Your task to perform on an android device: delete browsing data in the chrome app Image 0: 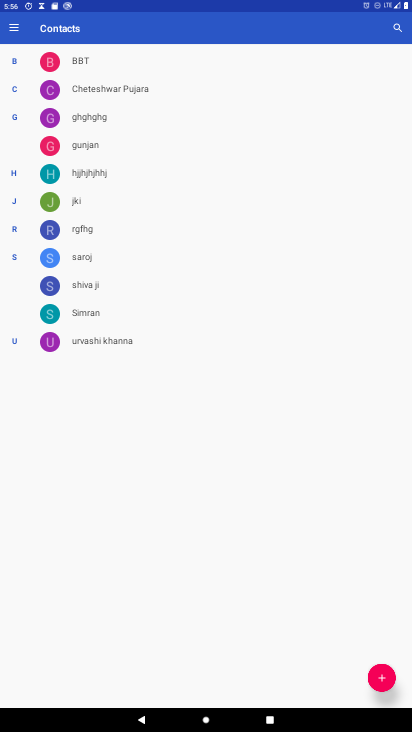
Step 0: press home button
Your task to perform on an android device: delete browsing data in the chrome app Image 1: 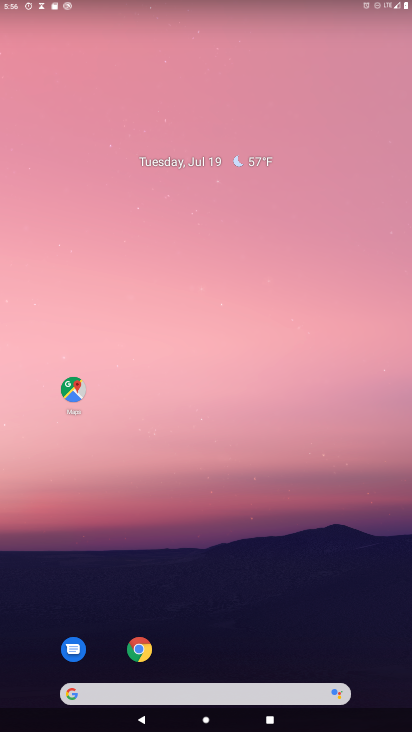
Step 1: click (146, 650)
Your task to perform on an android device: delete browsing data in the chrome app Image 2: 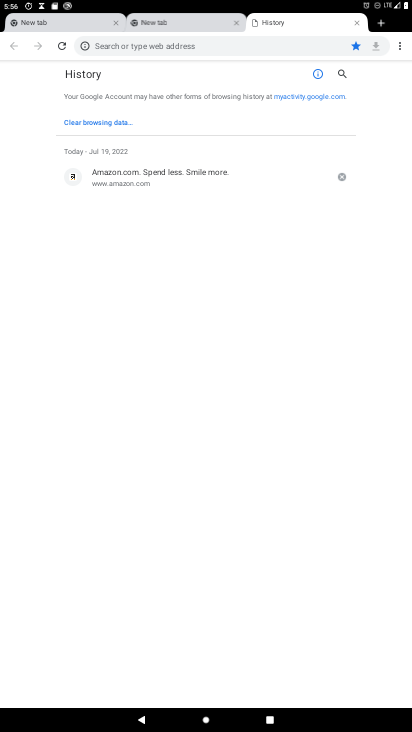
Step 2: click (396, 47)
Your task to perform on an android device: delete browsing data in the chrome app Image 3: 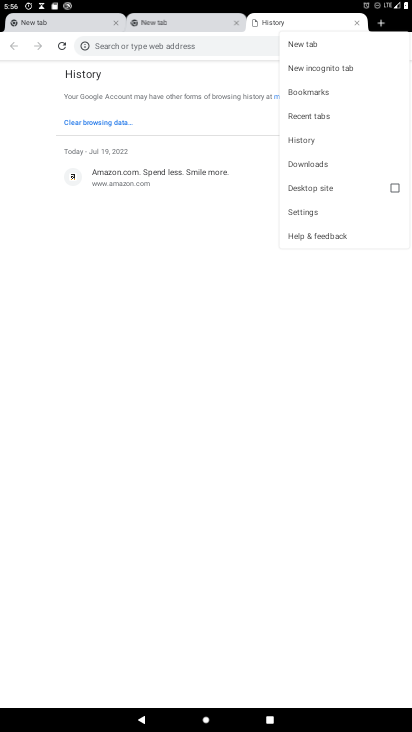
Step 3: click (320, 140)
Your task to perform on an android device: delete browsing data in the chrome app Image 4: 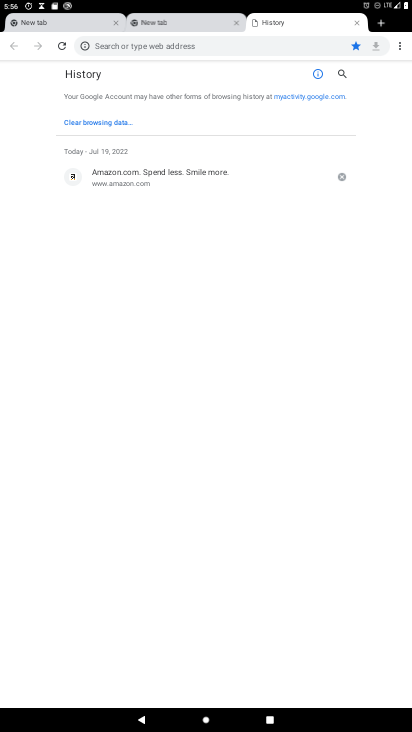
Step 4: click (90, 127)
Your task to perform on an android device: delete browsing data in the chrome app Image 5: 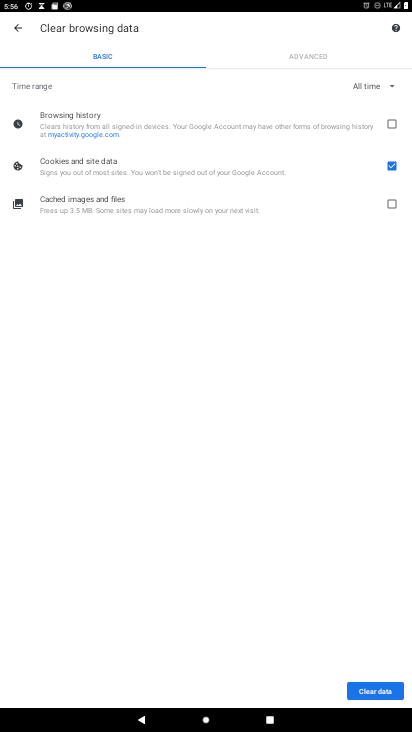
Step 5: click (396, 124)
Your task to perform on an android device: delete browsing data in the chrome app Image 6: 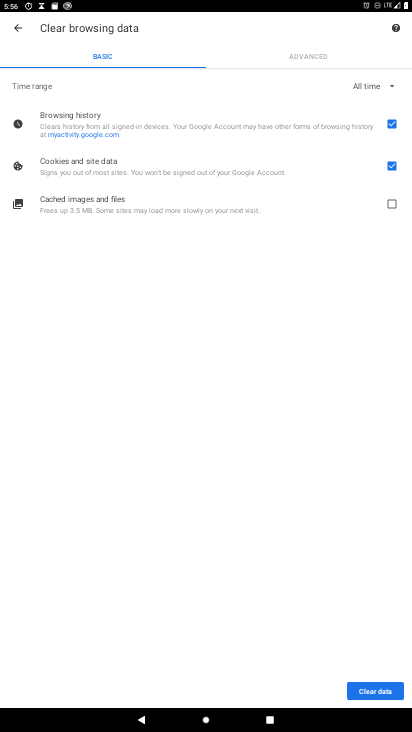
Step 6: click (392, 203)
Your task to perform on an android device: delete browsing data in the chrome app Image 7: 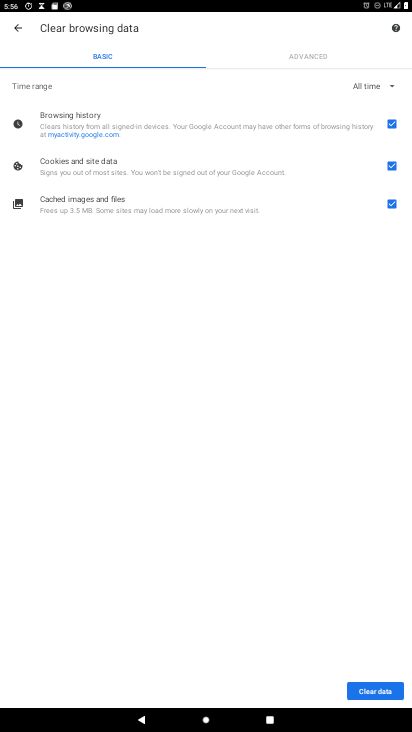
Step 7: click (390, 689)
Your task to perform on an android device: delete browsing data in the chrome app Image 8: 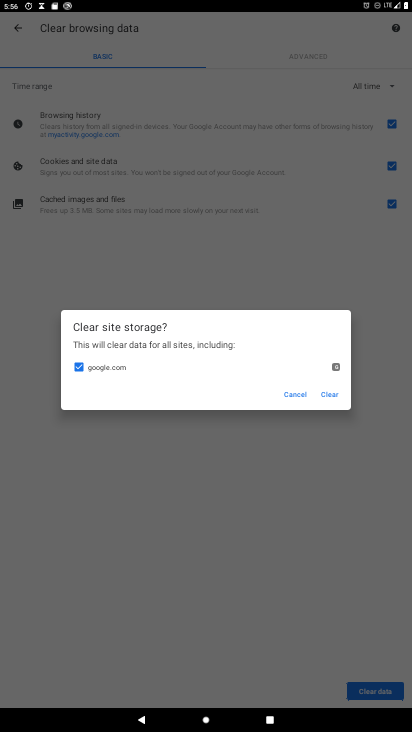
Step 8: click (322, 395)
Your task to perform on an android device: delete browsing data in the chrome app Image 9: 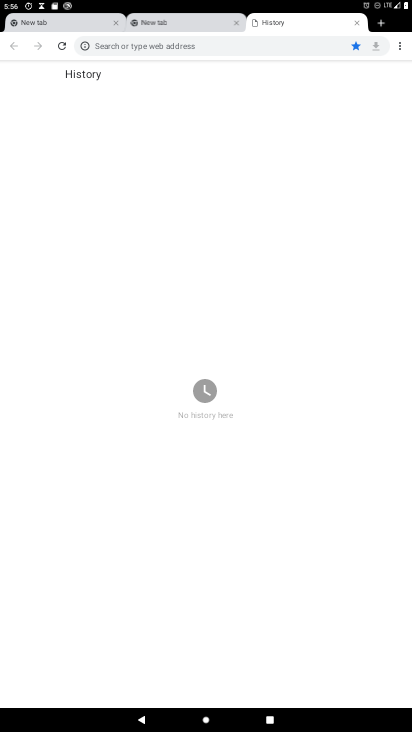
Step 9: task complete